Your task to perform on an android device: Open Youtube and go to "Your channel" Image 0: 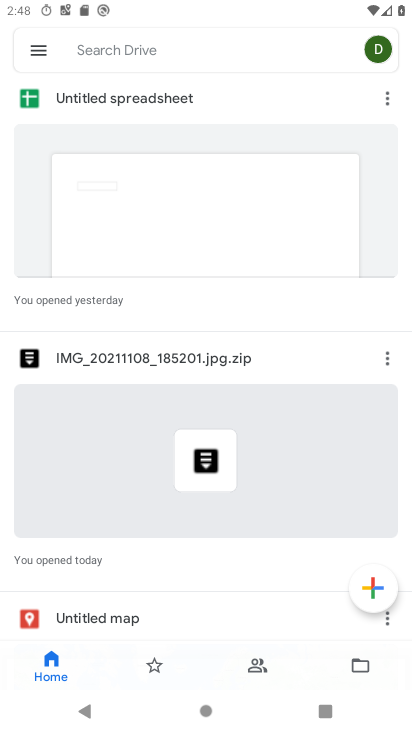
Step 0: press home button
Your task to perform on an android device: Open Youtube and go to "Your channel" Image 1: 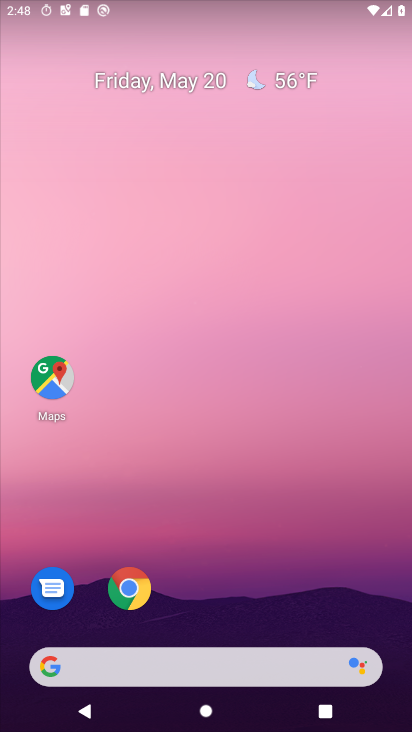
Step 1: drag from (26, 634) to (268, 200)
Your task to perform on an android device: Open Youtube and go to "Your channel" Image 2: 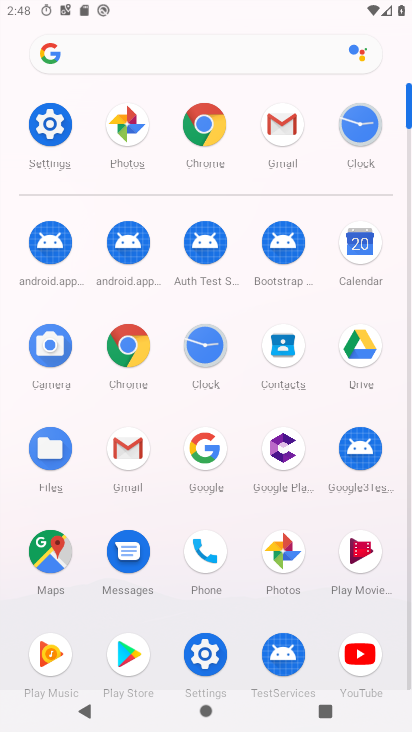
Step 2: click (374, 654)
Your task to perform on an android device: Open Youtube and go to "Your channel" Image 3: 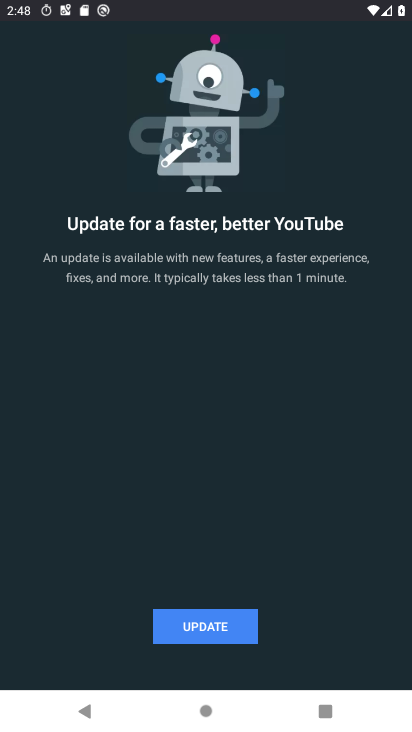
Step 3: task complete